Your task to perform on an android device: create a new album in the google photos Image 0: 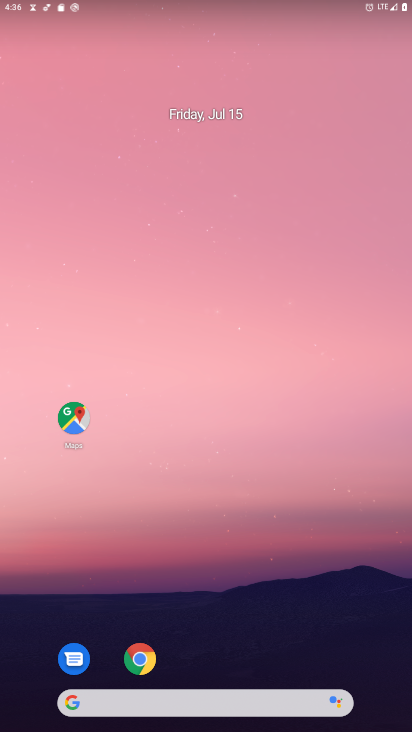
Step 0: drag from (279, 699) to (265, 31)
Your task to perform on an android device: create a new album in the google photos Image 1: 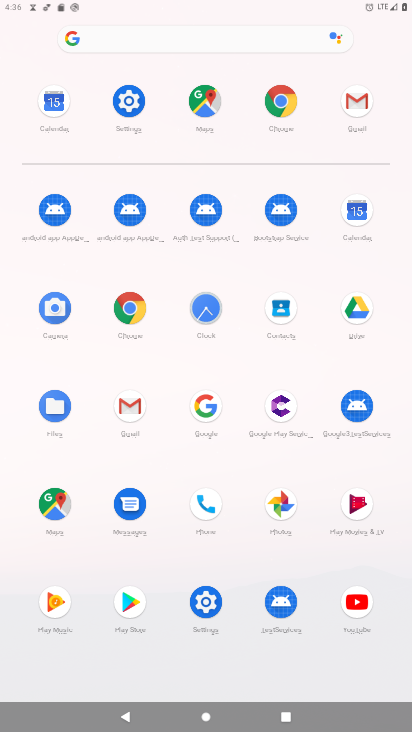
Step 1: click (282, 510)
Your task to perform on an android device: create a new album in the google photos Image 2: 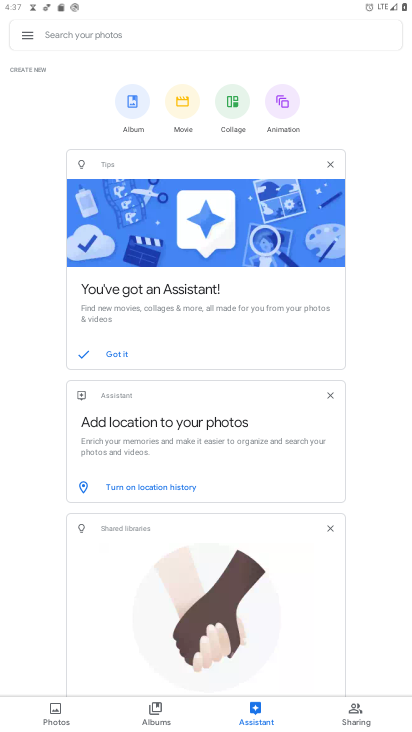
Step 2: click (162, 716)
Your task to perform on an android device: create a new album in the google photos Image 3: 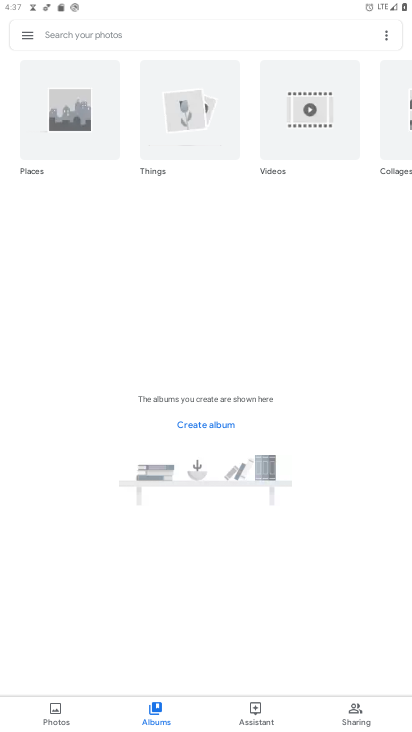
Step 3: task complete